Your task to perform on an android device: open app "Venmo" (install if not already installed) Image 0: 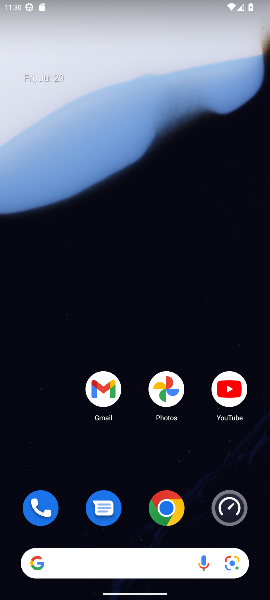
Step 0: drag from (131, 566) to (142, 19)
Your task to perform on an android device: open app "Venmo" (install if not already installed) Image 1: 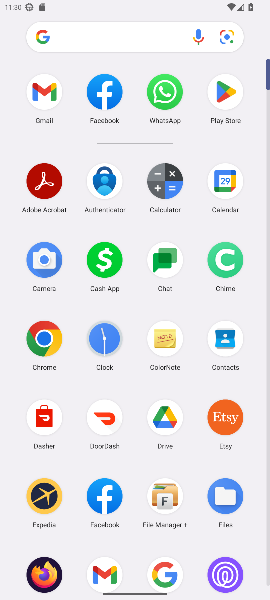
Step 1: click (232, 89)
Your task to perform on an android device: open app "Venmo" (install if not already installed) Image 2: 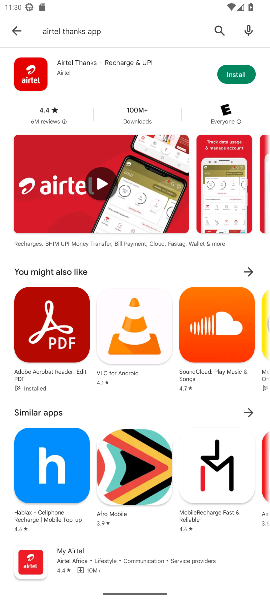
Step 2: click (219, 26)
Your task to perform on an android device: open app "Venmo" (install if not already installed) Image 3: 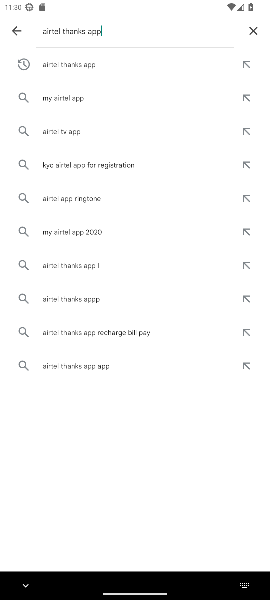
Step 3: click (247, 29)
Your task to perform on an android device: open app "Venmo" (install if not already installed) Image 4: 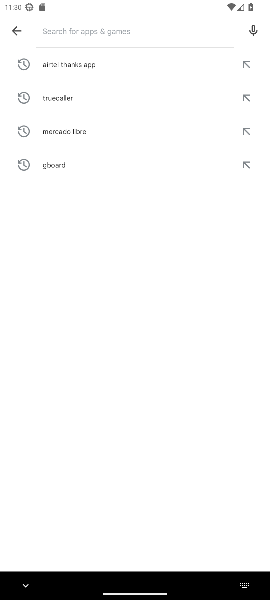
Step 4: type "venmo"
Your task to perform on an android device: open app "Venmo" (install if not already installed) Image 5: 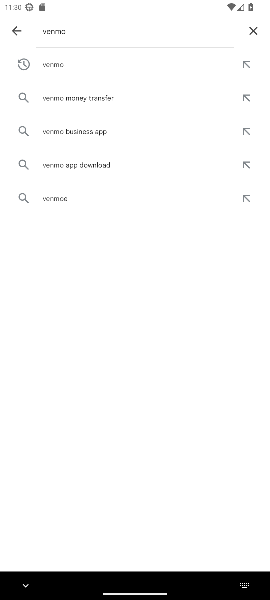
Step 5: click (64, 65)
Your task to perform on an android device: open app "Venmo" (install if not already installed) Image 6: 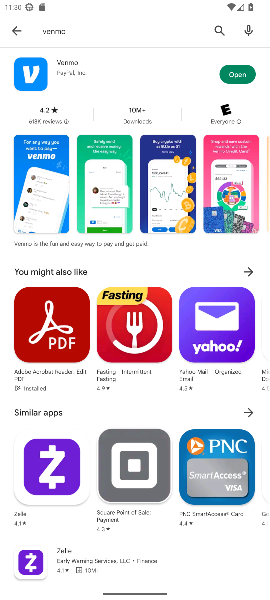
Step 6: click (228, 73)
Your task to perform on an android device: open app "Venmo" (install if not already installed) Image 7: 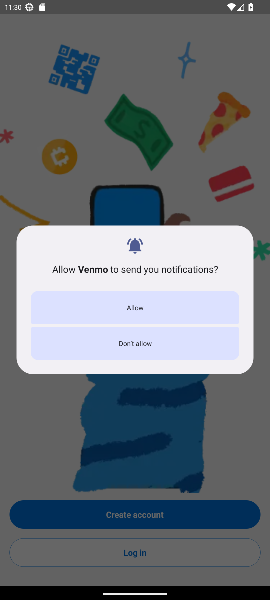
Step 7: task complete